Your task to perform on an android device: Search for seafood restaurants on Google Maps Image 0: 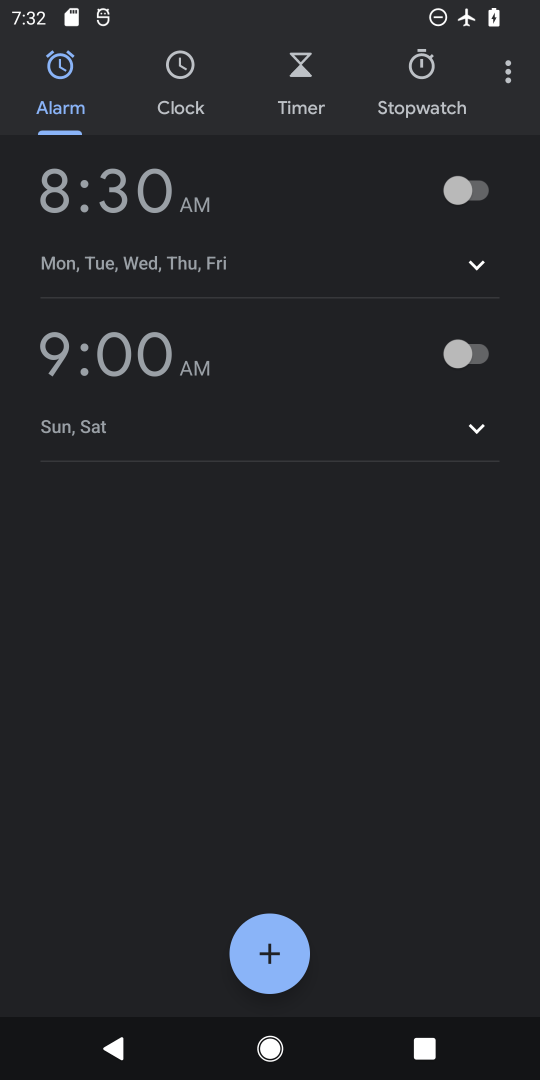
Step 0: press home button
Your task to perform on an android device: Search for seafood restaurants on Google Maps Image 1: 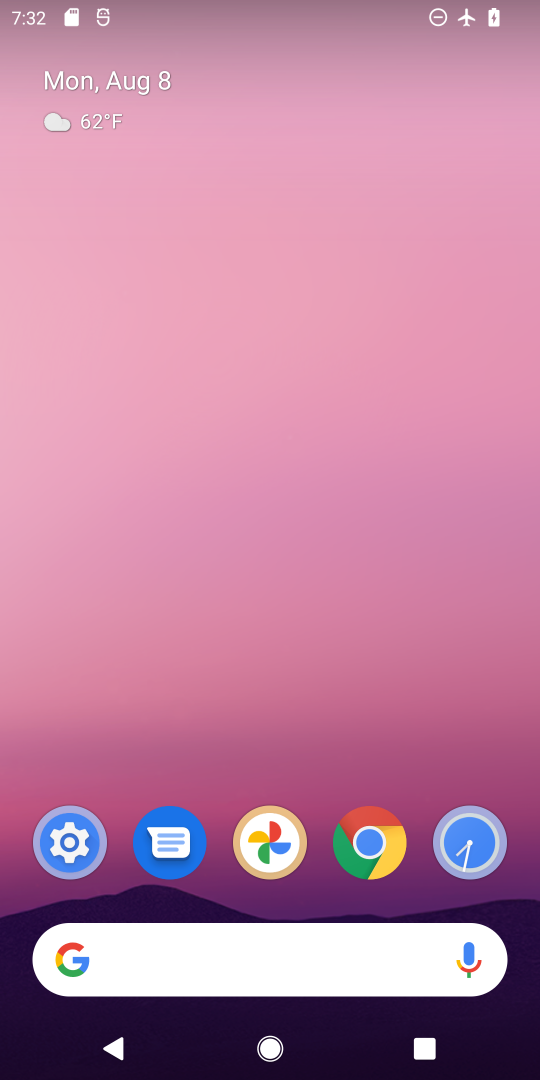
Step 1: drag from (224, 886) to (67, 111)
Your task to perform on an android device: Search for seafood restaurants on Google Maps Image 2: 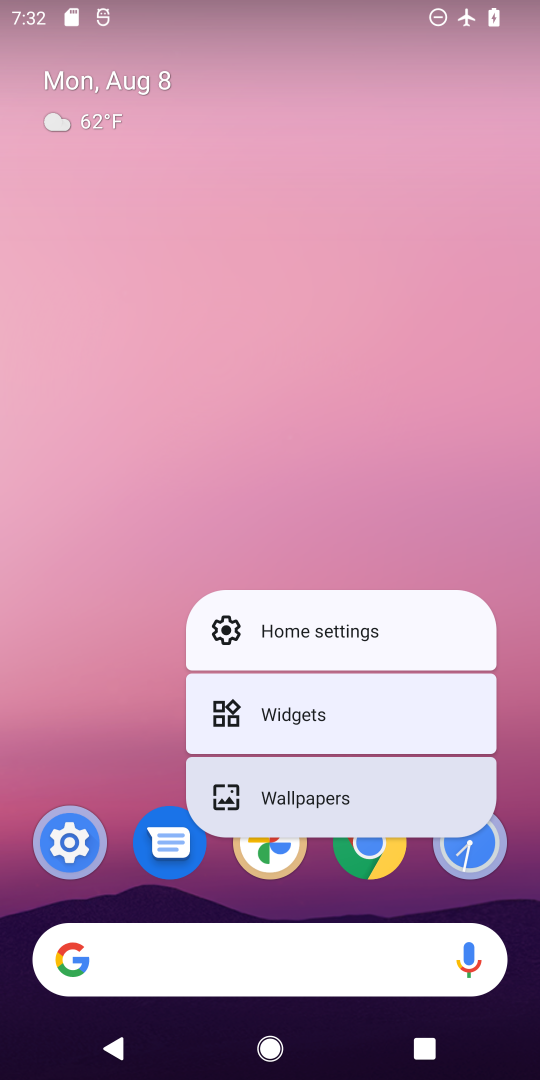
Step 2: click (246, 580)
Your task to perform on an android device: Search for seafood restaurants on Google Maps Image 3: 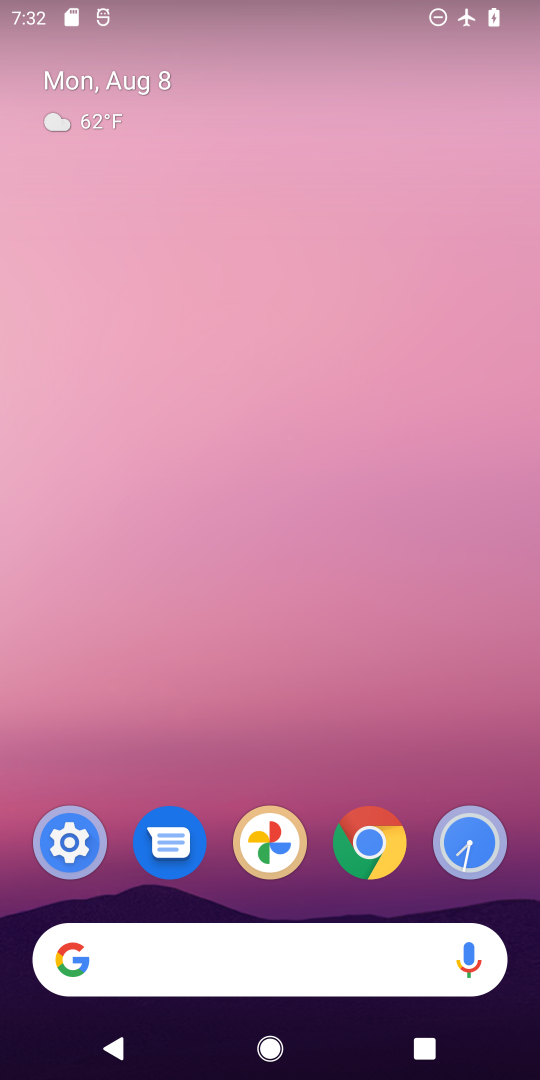
Step 3: drag from (278, 925) to (295, 9)
Your task to perform on an android device: Search for seafood restaurants on Google Maps Image 4: 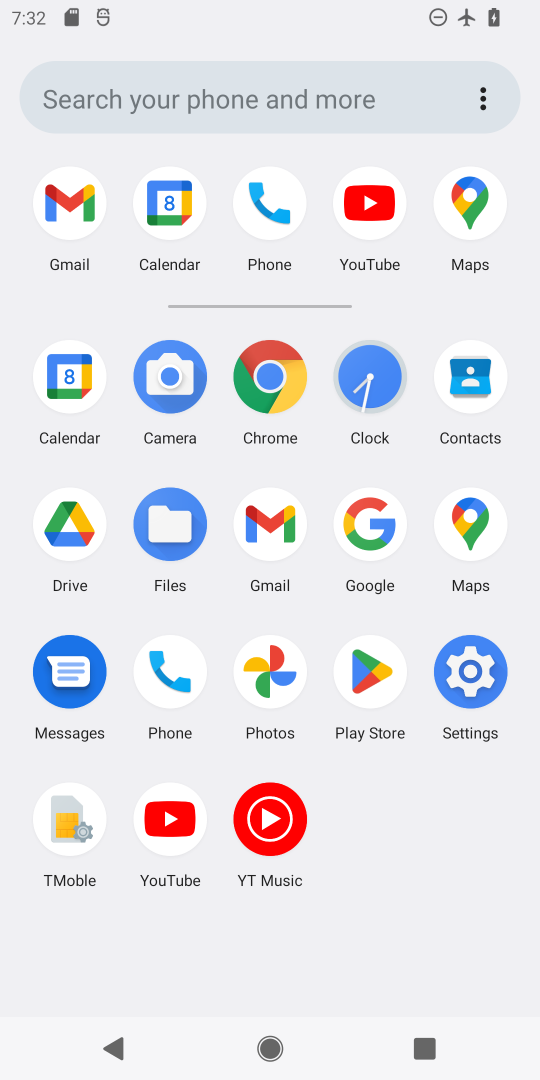
Step 4: click (445, 533)
Your task to perform on an android device: Search for seafood restaurants on Google Maps Image 5: 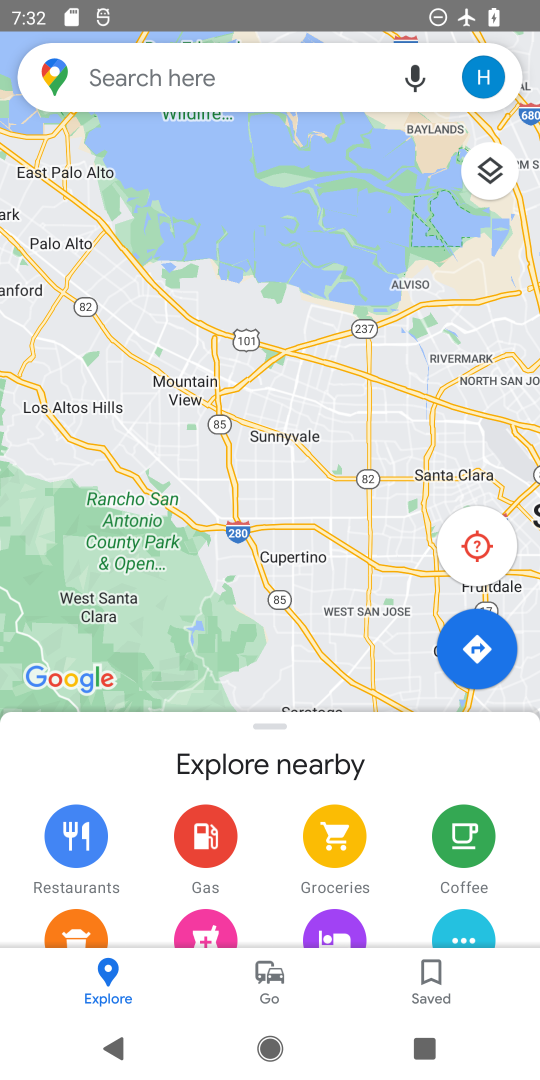
Step 5: click (195, 83)
Your task to perform on an android device: Search for seafood restaurants on Google Maps Image 6: 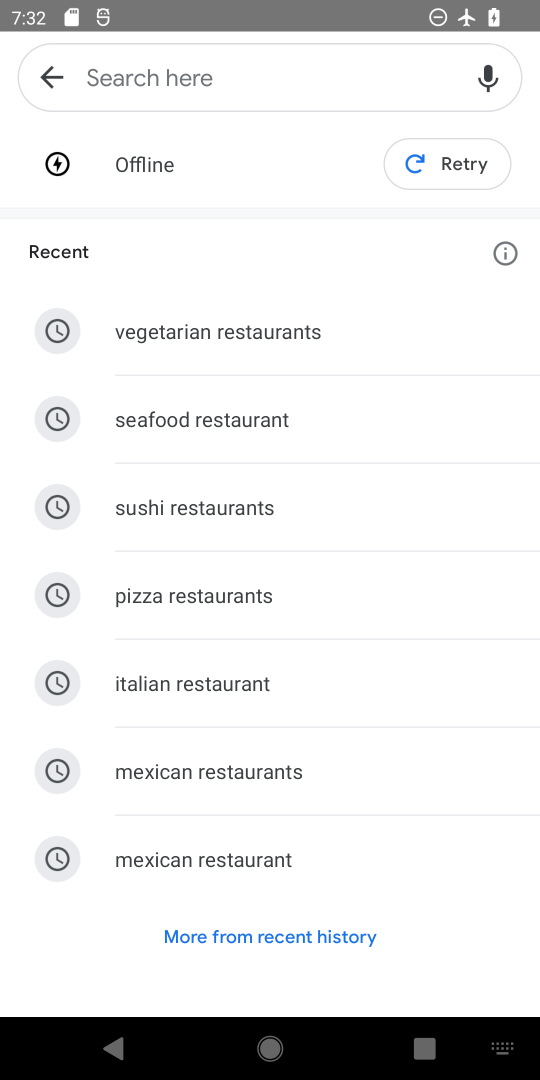
Step 6: click (175, 391)
Your task to perform on an android device: Search for seafood restaurants on Google Maps Image 7: 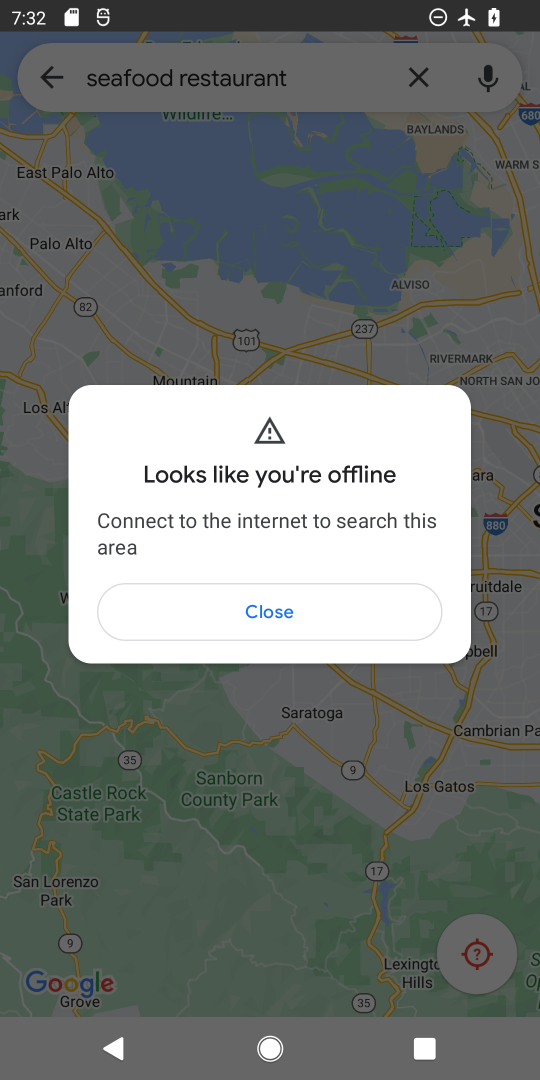
Step 7: click (281, 603)
Your task to perform on an android device: Search for seafood restaurants on Google Maps Image 8: 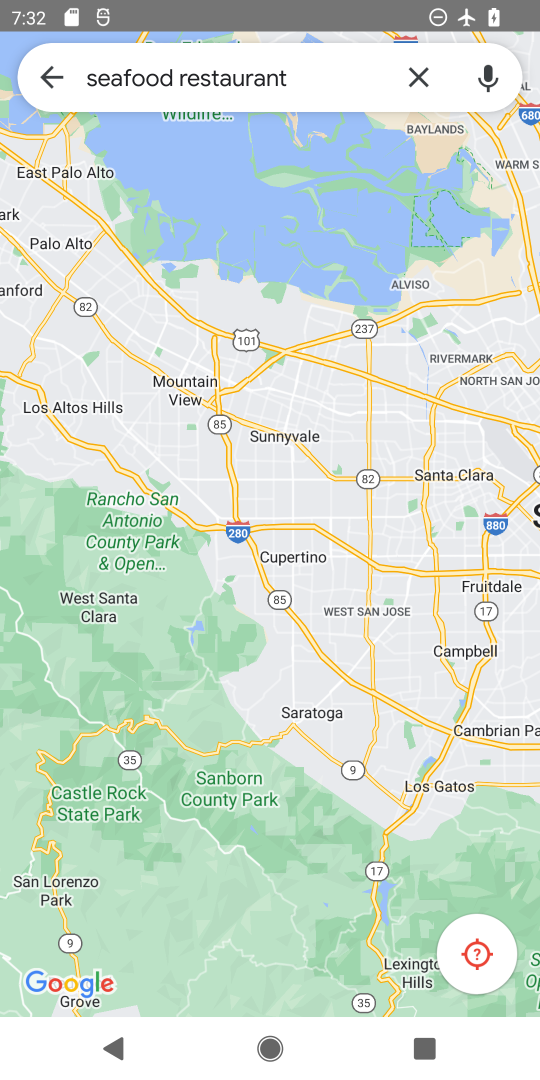
Step 8: task complete